Your task to perform on an android device: find photos in the google photos app Image 0: 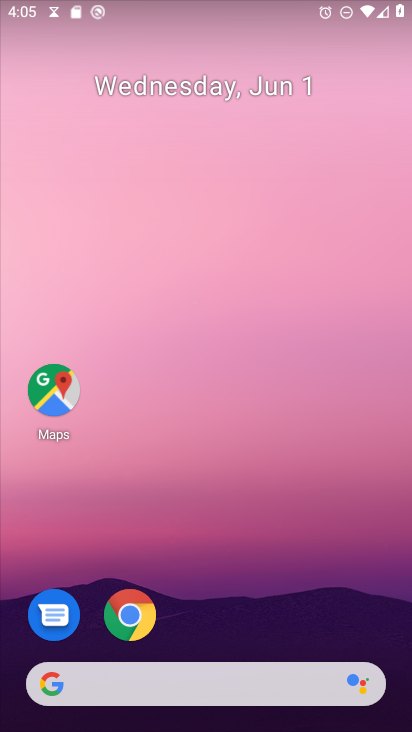
Step 0: press home button
Your task to perform on an android device: find photos in the google photos app Image 1: 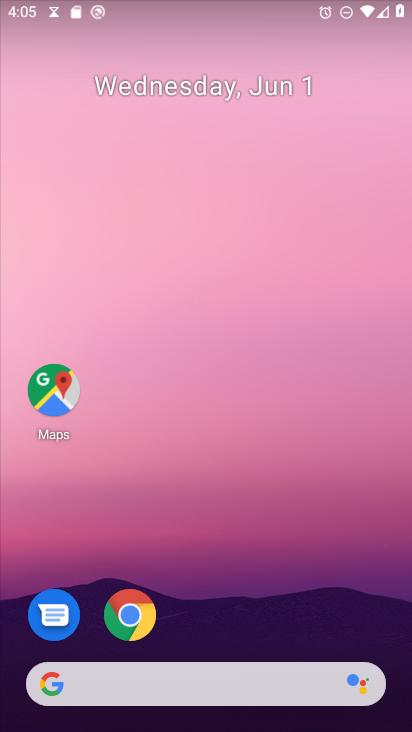
Step 1: drag from (224, 649) to (236, 44)
Your task to perform on an android device: find photos in the google photos app Image 2: 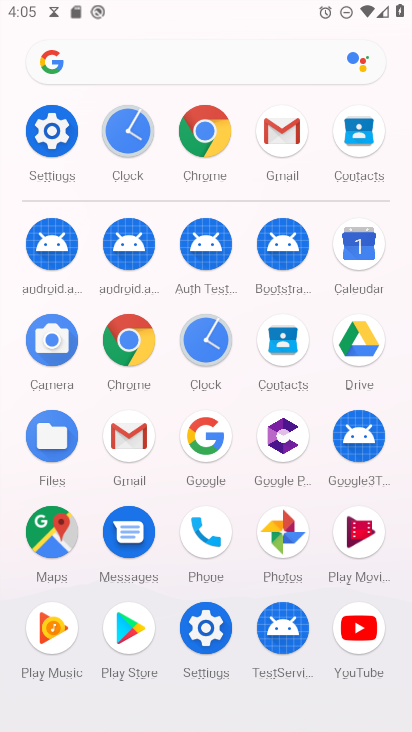
Step 2: click (280, 526)
Your task to perform on an android device: find photos in the google photos app Image 3: 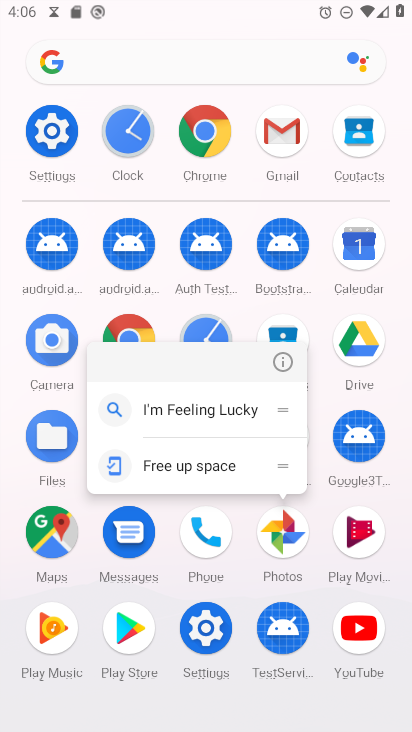
Step 3: click (283, 525)
Your task to perform on an android device: find photos in the google photos app Image 4: 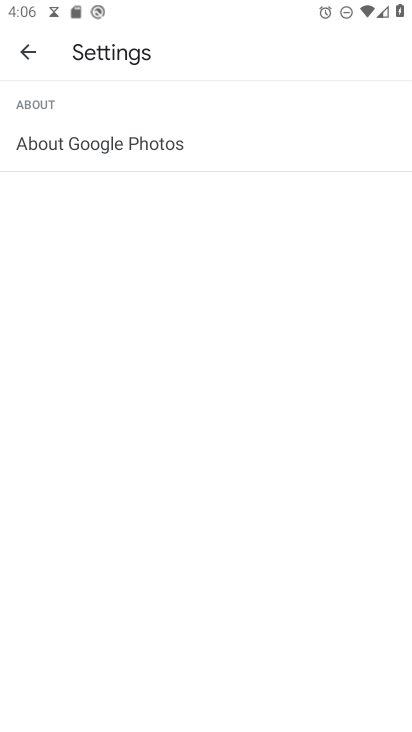
Step 4: click (41, 55)
Your task to perform on an android device: find photos in the google photos app Image 5: 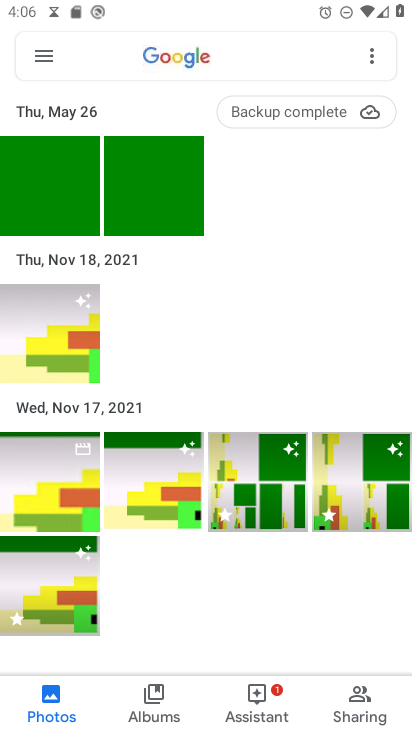
Step 5: task complete